Your task to perform on an android device: Go to Google Image 0: 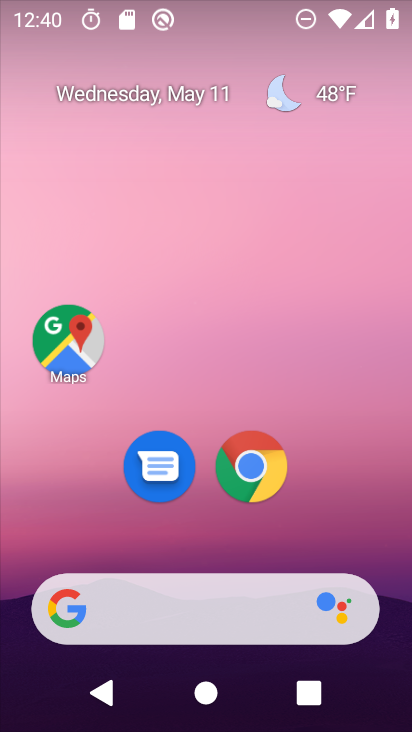
Step 0: drag from (204, 539) to (240, 57)
Your task to perform on an android device: Go to Google Image 1: 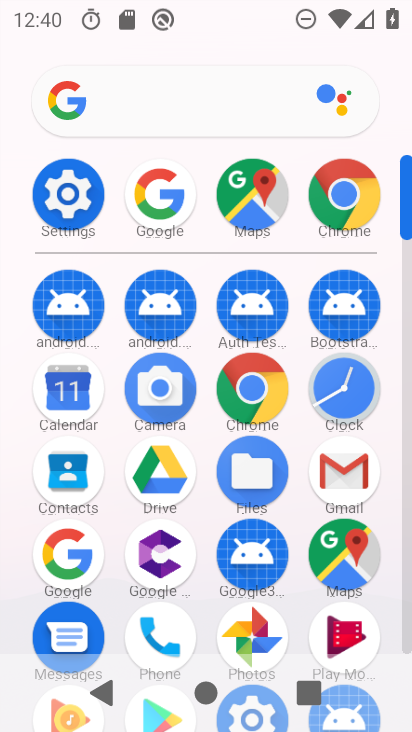
Step 1: click (69, 547)
Your task to perform on an android device: Go to Google Image 2: 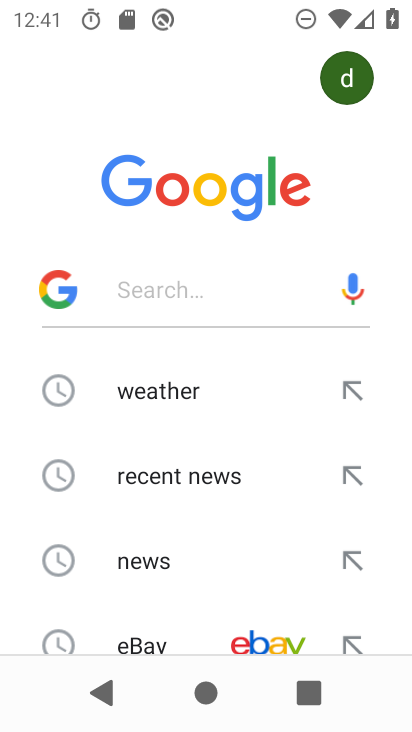
Step 2: task complete